Your task to perform on an android device: Search for lenovo thinkpad on costco.com, select the first entry, add it to the cart, then select checkout. Image 0: 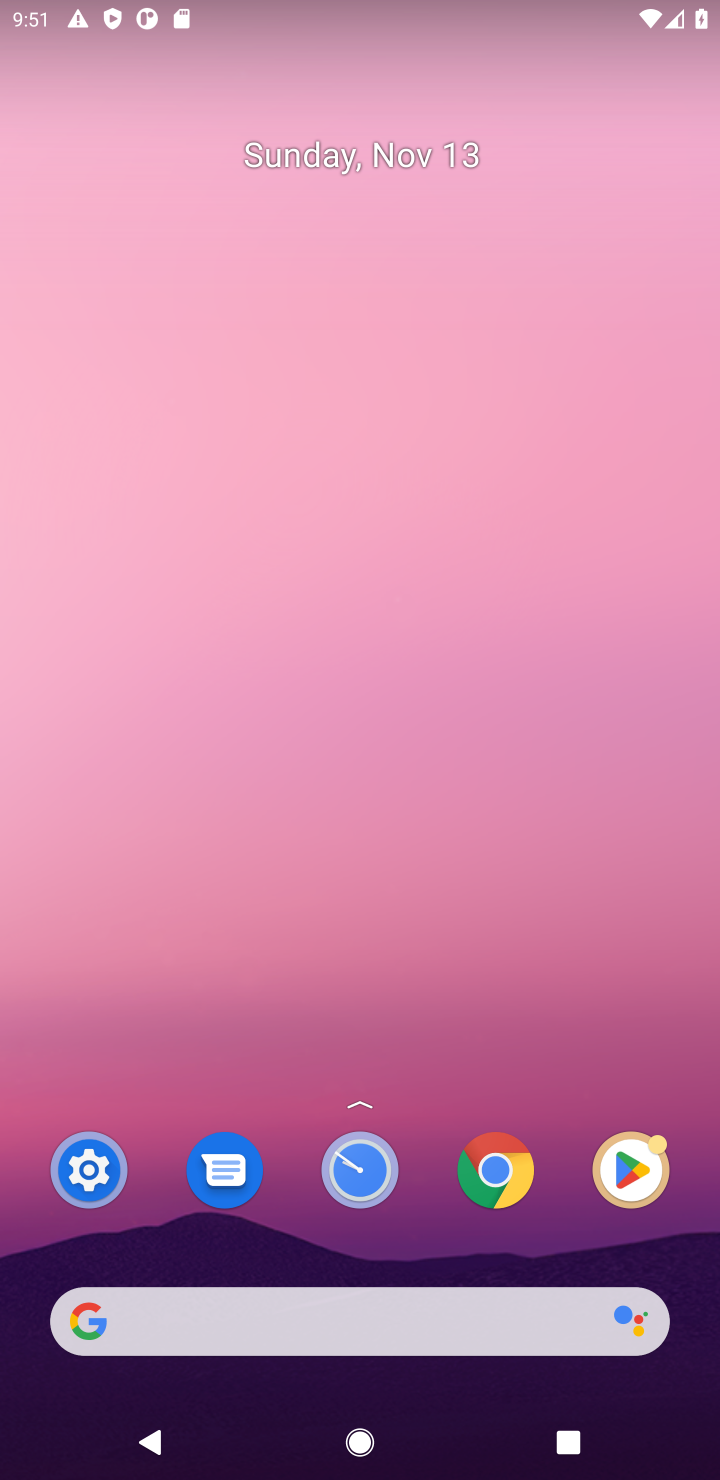
Step 0: click (417, 1349)
Your task to perform on an android device: Search for lenovo thinkpad on costco.com, select the first entry, add it to the cart, then select checkout. Image 1: 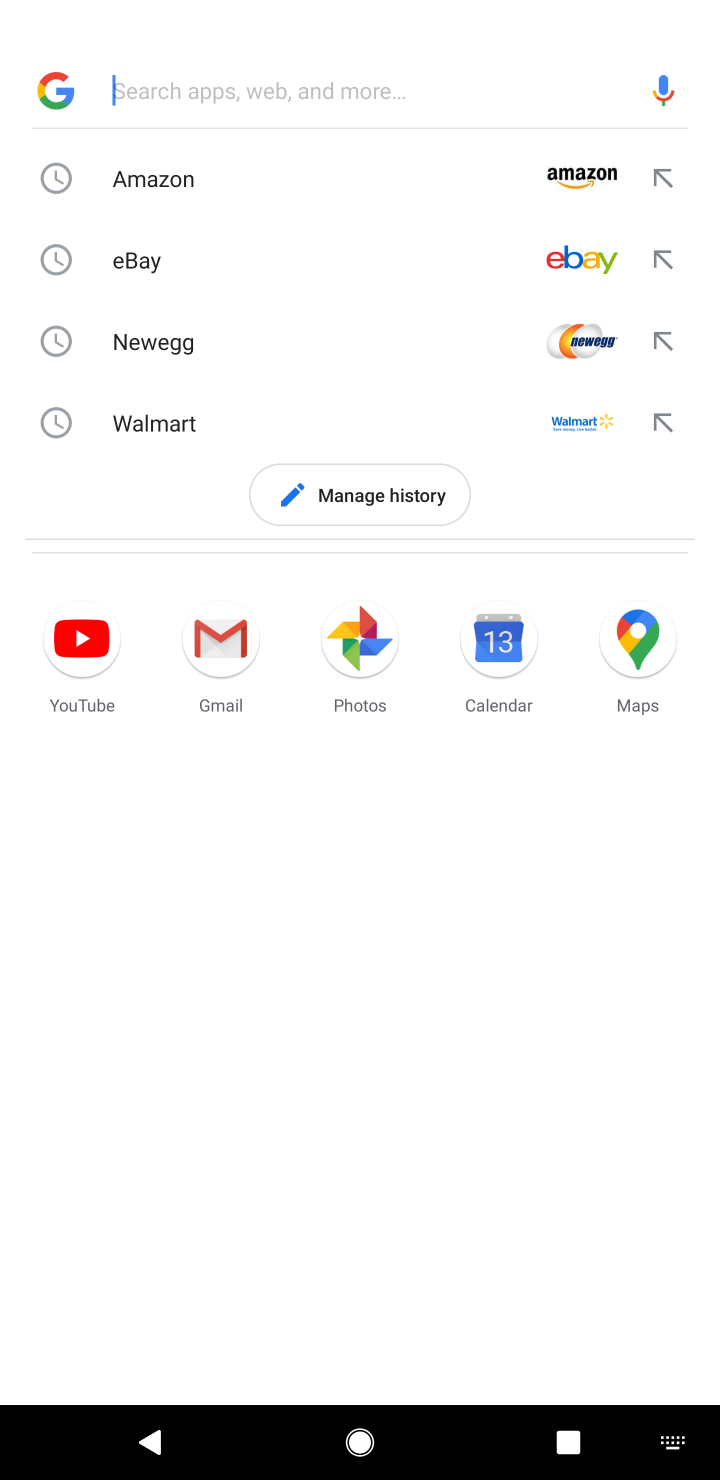
Step 1: type "costco.com"
Your task to perform on an android device: Search for lenovo thinkpad on costco.com, select the first entry, add it to the cart, then select checkout. Image 2: 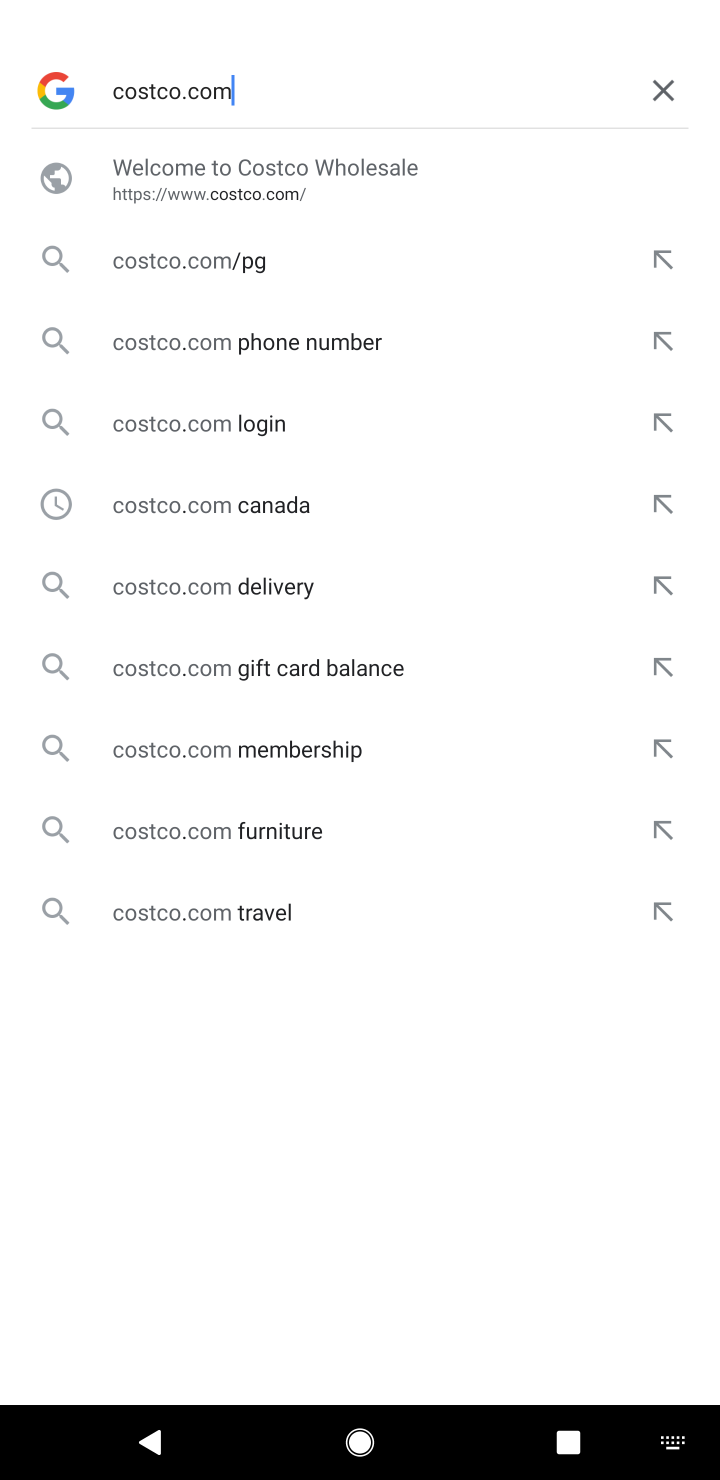
Step 2: click (263, 186)
Your task to perform on an android device: Search for lenovo thinkpad on costco.com, select the first entry, add it to the cart, then select checkout. Image 3: 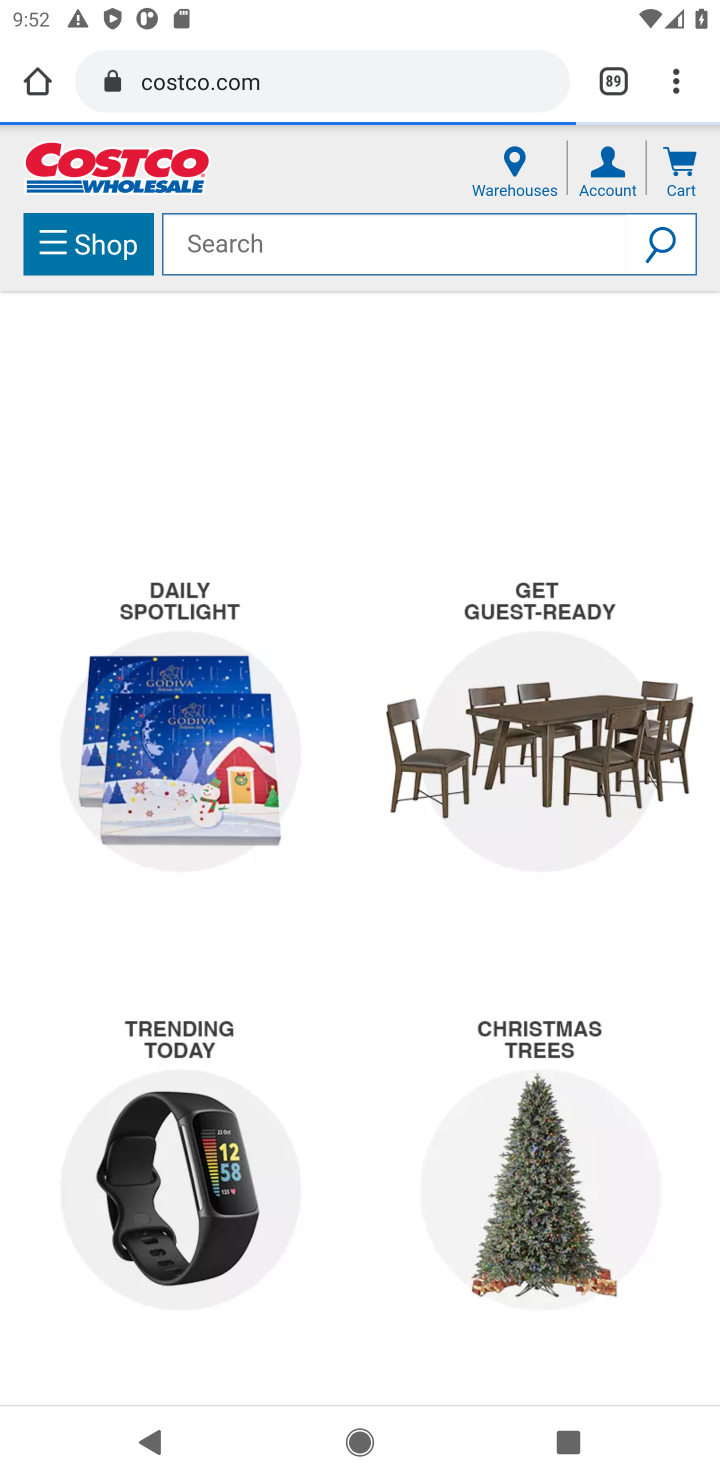
Step 3: task complete